Your task to perform on an android device: turn off airplane mode Image 0: 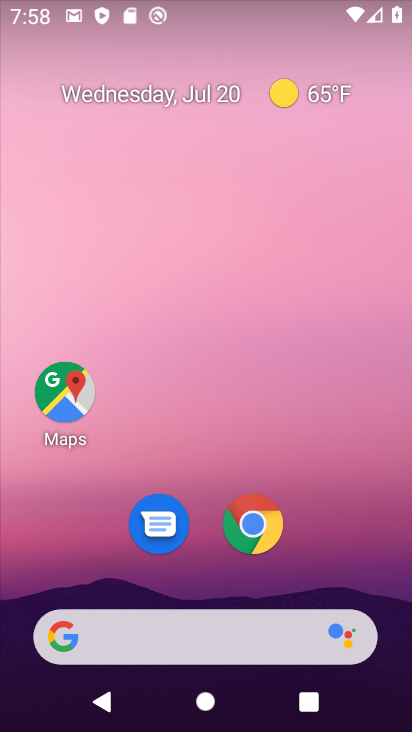
Step 0: drag from (339, 548) to (314, 0)
Your task to perform on an android device: turn off airplane mode Image 1: 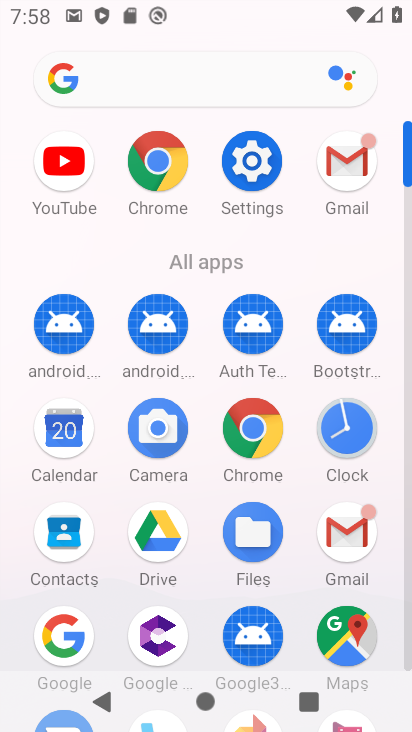
Step 1: click (259, 164)
Your task to perform on an android device: turn off airplane mode Image 2: 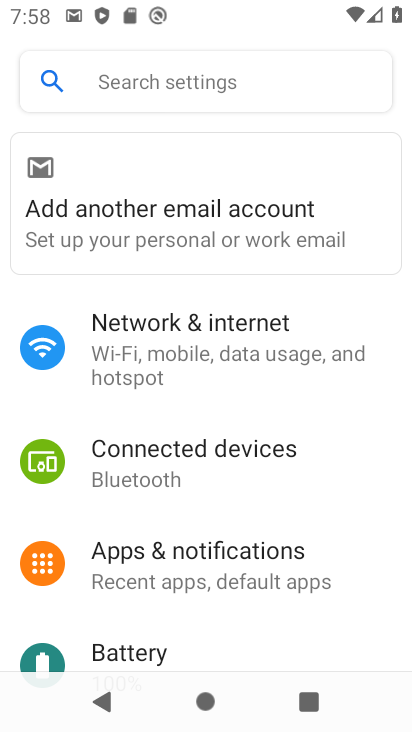
Step 2: click (226, 325)
Your task to perform on an android device: turn off airplane mode Image 3: 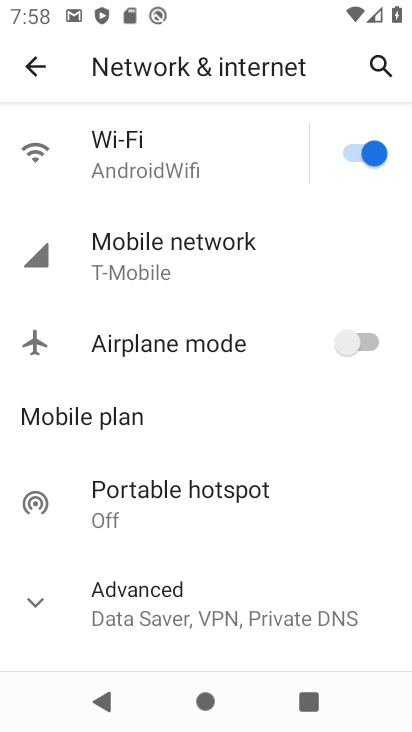
Step 3: task complete